Your task to perform on an android device: Add logitech g910 to the cart on ebay, then select checkout. Image 0: 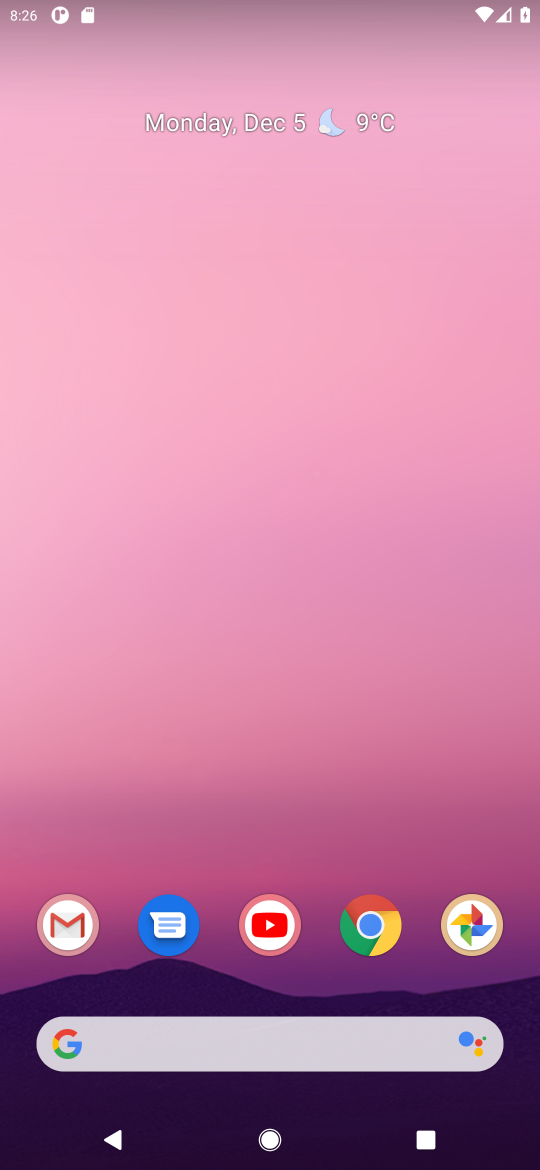
Step 0: click (368, 926)
Your task to perform on an android device: Add logitech g910 to the cart on ebay, then select checkout. Image 1: 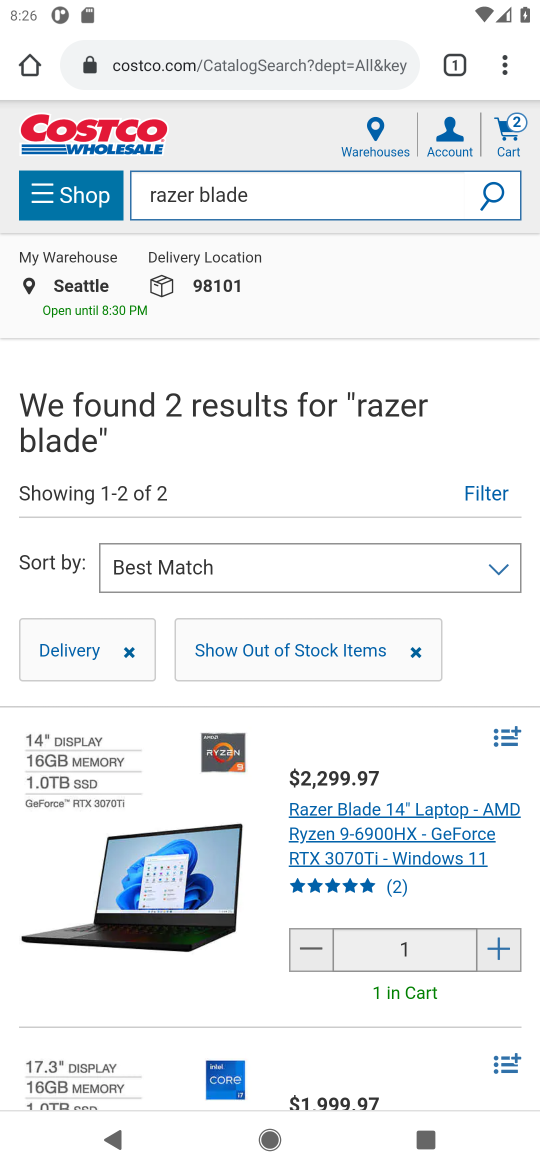
Step 1: click (221, 59)
Your task to perform on an android device: Add logitech g910 to the cart on ebay, then select checkout. Image 2: 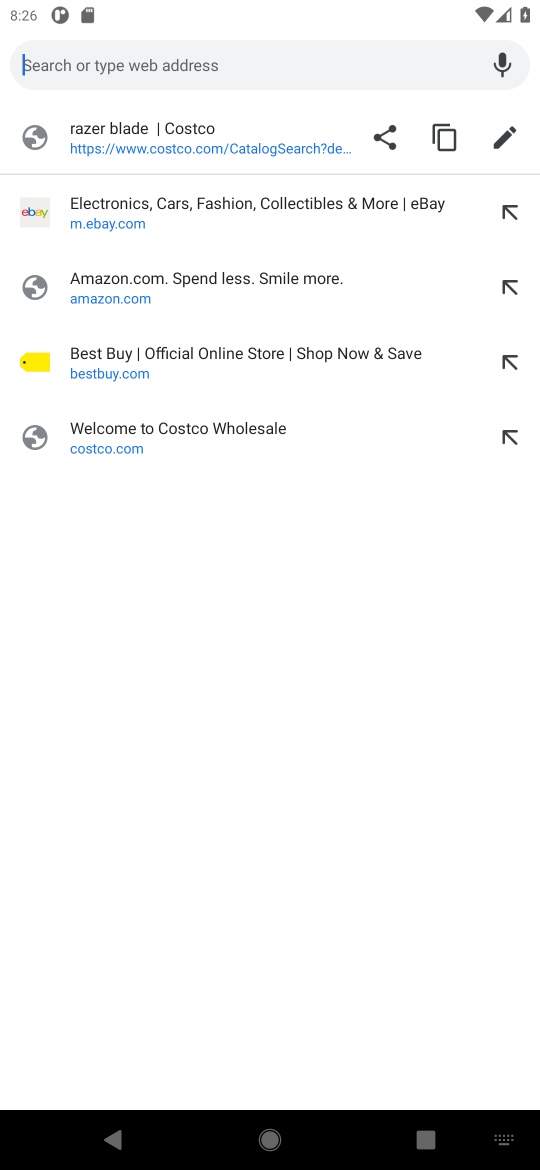
Step 2: click (93, 200)
Your task to perform on an android device: Add logitech g910 to the cart on ebay, then select checkout. Image 3: 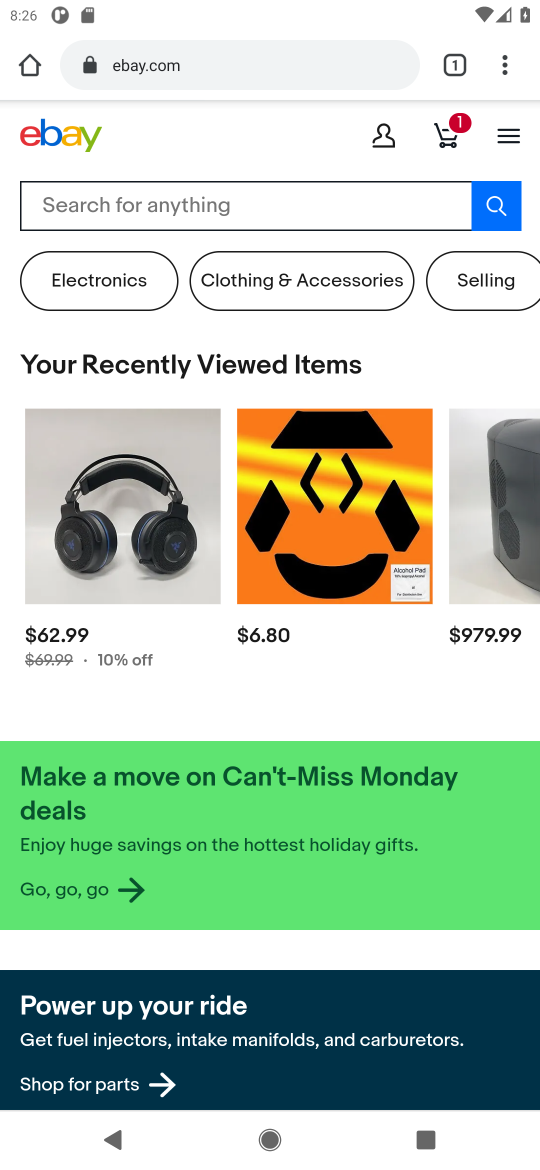
Step 3: click (106, 197)
Your task to perform on an android device: Add logitech g910 to the cart on ebay, then select checkout. Image 4: 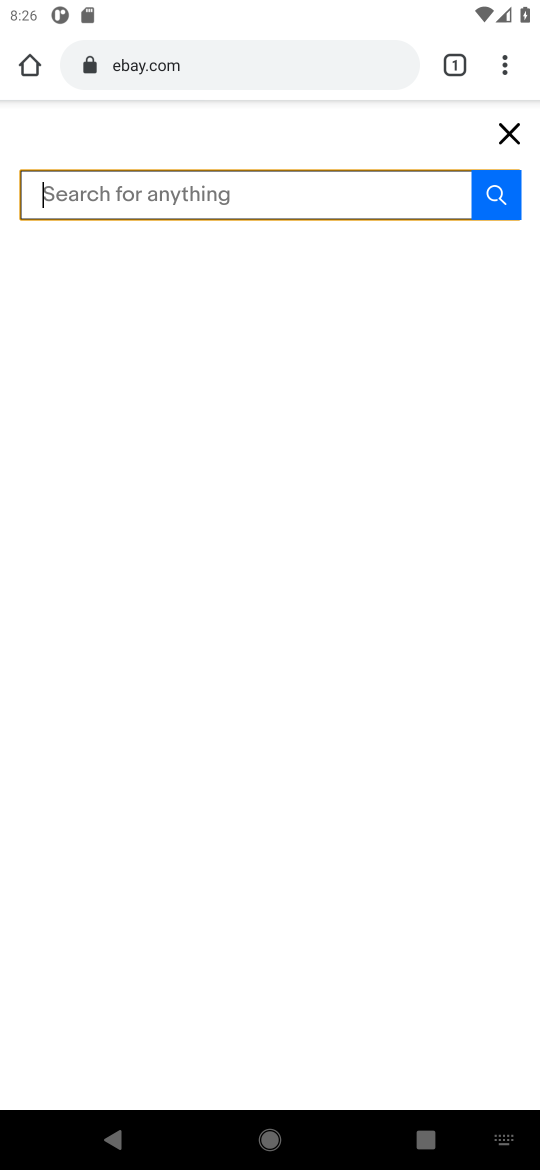
Step 4: type " logitech g910"
Your task to perform on an android device: Add logitech g910 to the cart on ebay, then select checkout. Image 5: 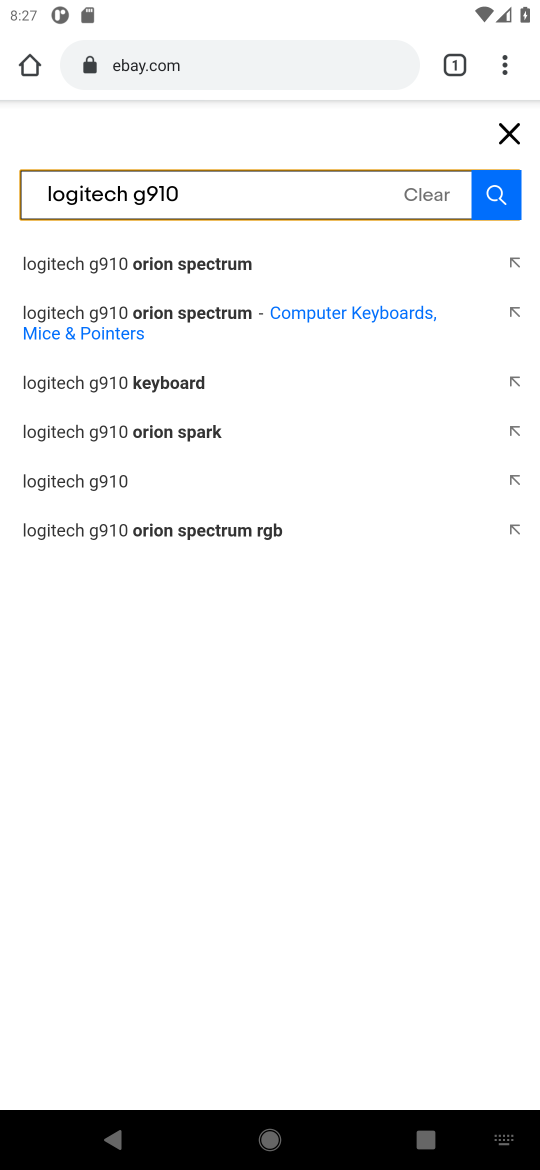
Step 5: click (69, 481)
Your task to perform on an android device: Add logitech g910 to the cart on ebay, then select checkout. Image 6: 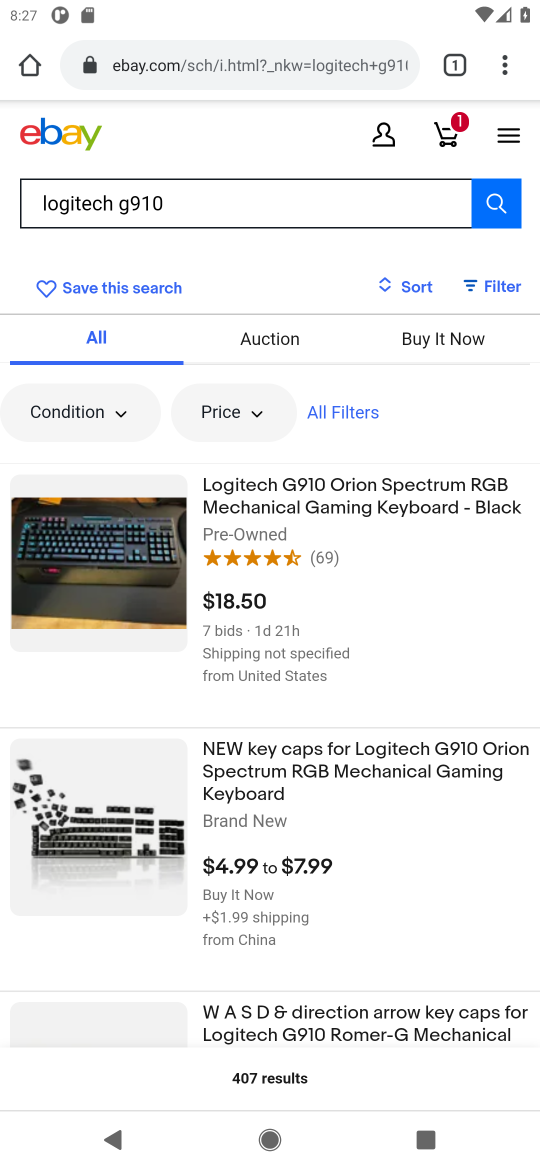
Step 6: click (241, 527)
Your task to perform on an android device: Add logitech g910 to the cart on ebay, then select checkout. Image 7: 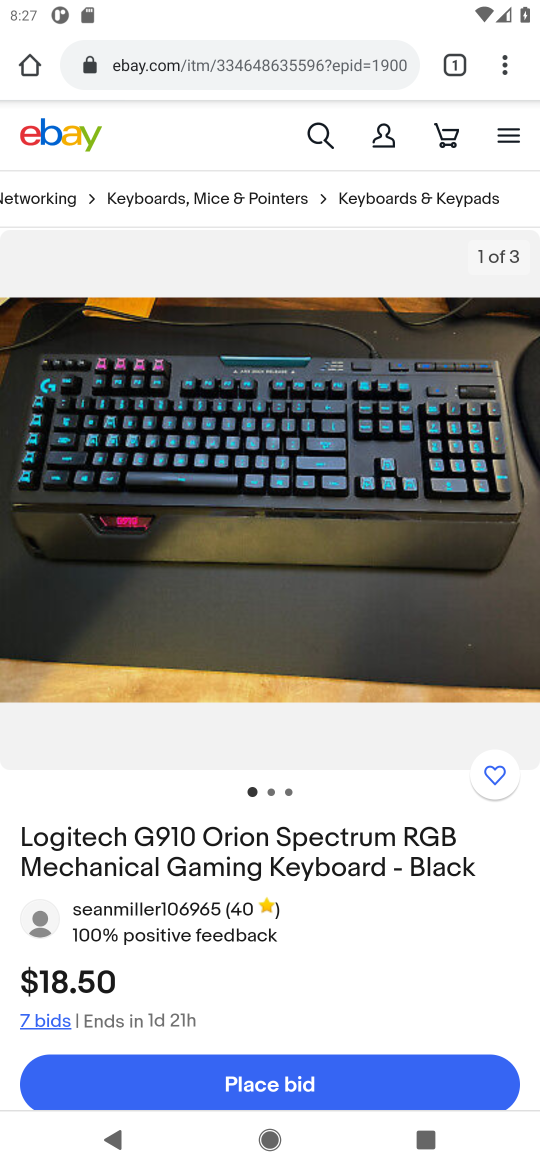
Step 7: drag from (318, 840) to (306, 399)
Your task to perform on an android device: Add logitech g910 to the cart on ebay, then select checkout. Image 8: 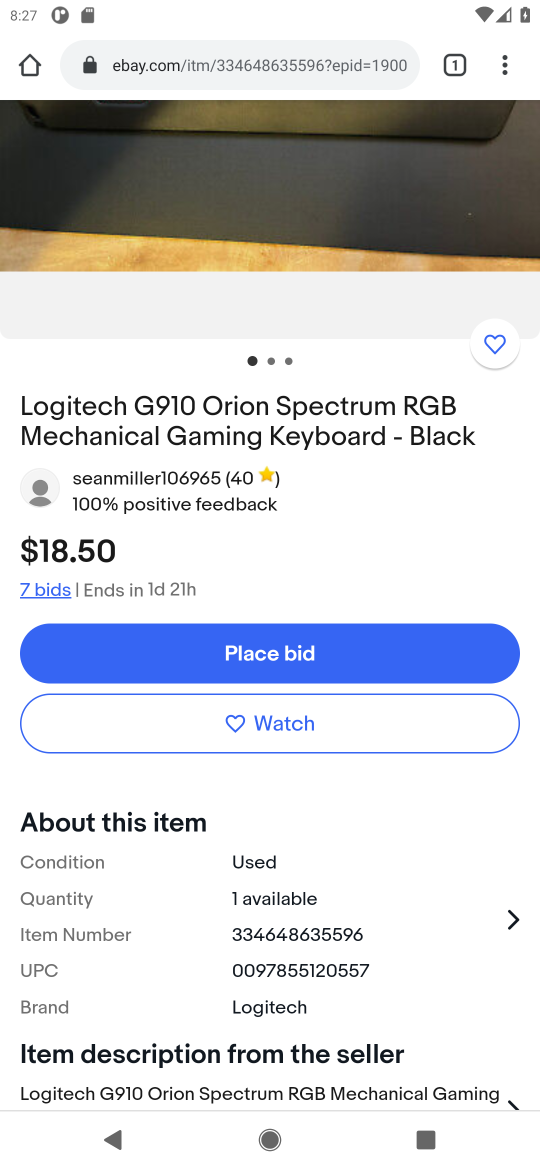
Step 8: press back button
Your task to perform on an android device: Add logitech g910 to the cart on ebay, then select checkout. Image 9: 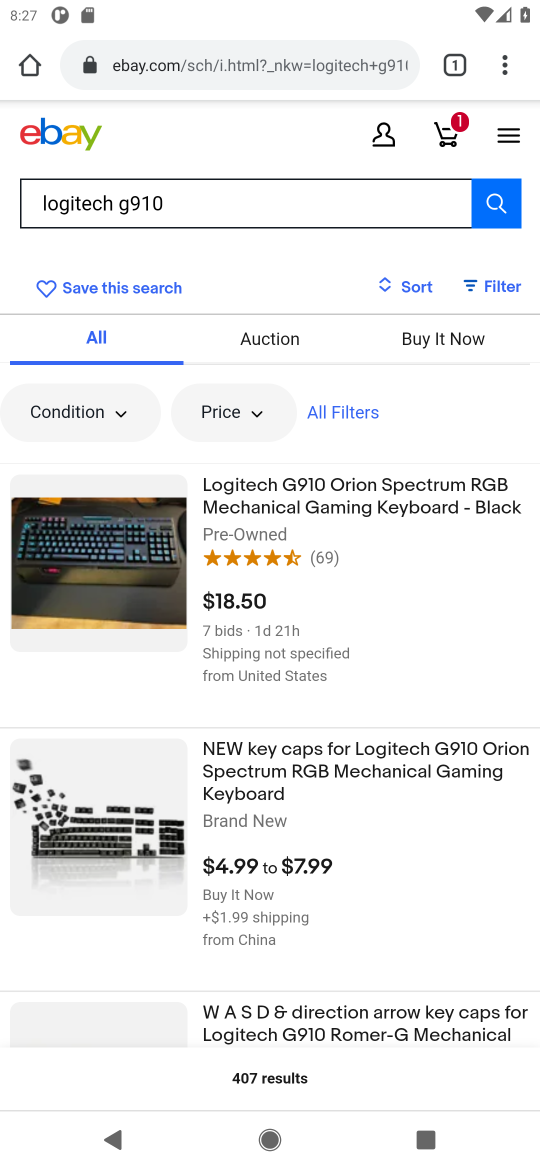
Step 9: click (268, 789)
Your task to perform on an android device: Add logitech g910 to the cart on ebay, then select checkout. Image 10: 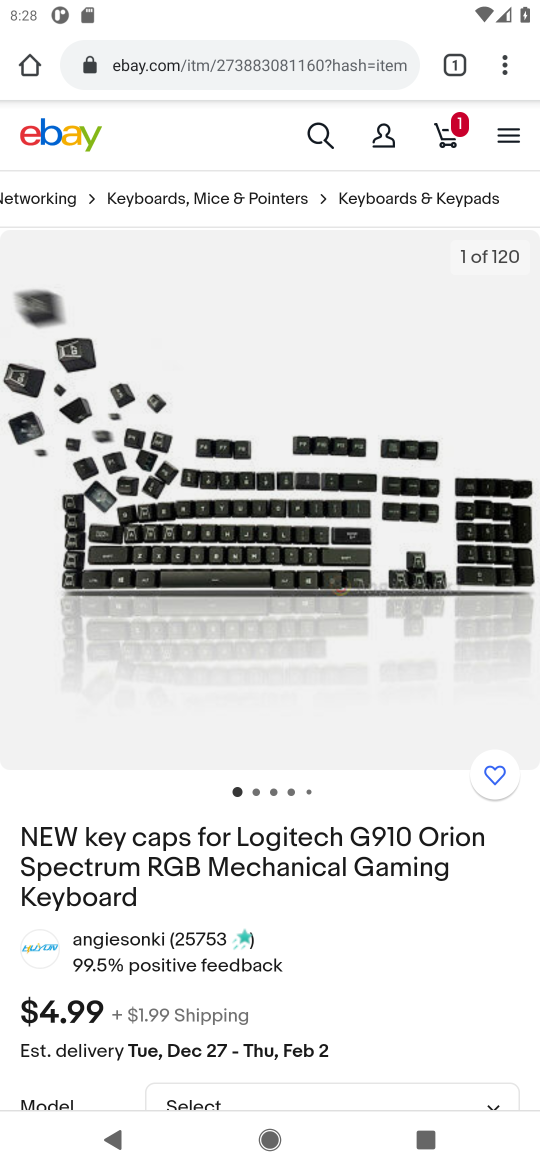
Step 10: drag from (320, 946) to (328, 456)
Your task to perform on an android device: Add logitech g910 to the cart on ebay, then select checkout. Image 11: 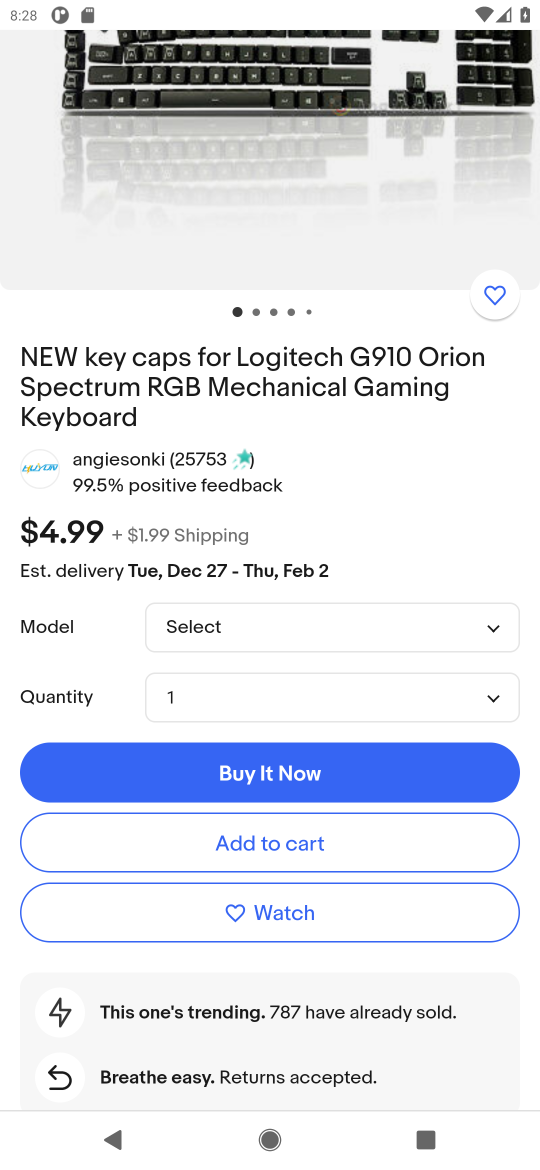
Step 11: click (255, 848)
Your task to perform on an android device: Add logitech g910 to the cart on ebay, then select checkout. Image 12: 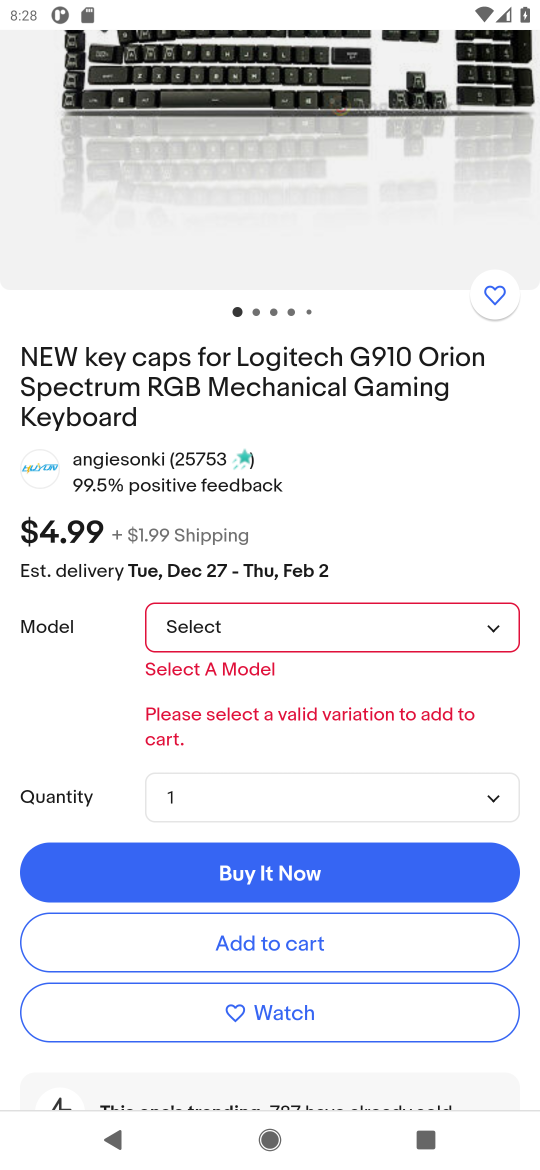
Step 12: click (489, 640)
Your task to perform on an android device: Add logitech g910 to the cart on ebay, then select checkout. Image 13: 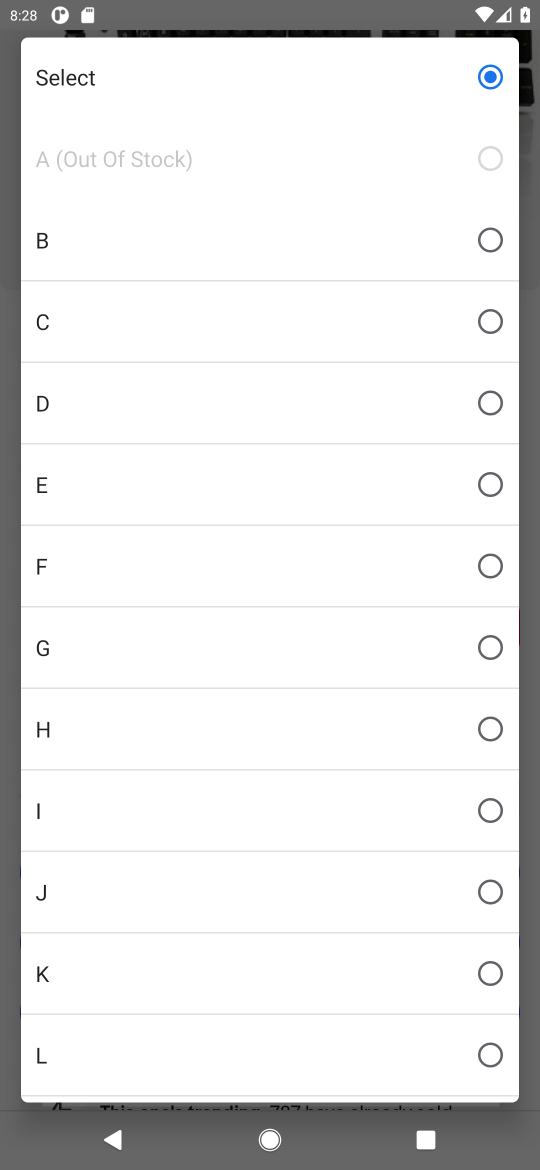
Step 13: click (36, 243)
Your task to perform on an android device: Add logitech g910 to the cart on ebay, then select checkout. Image 14: 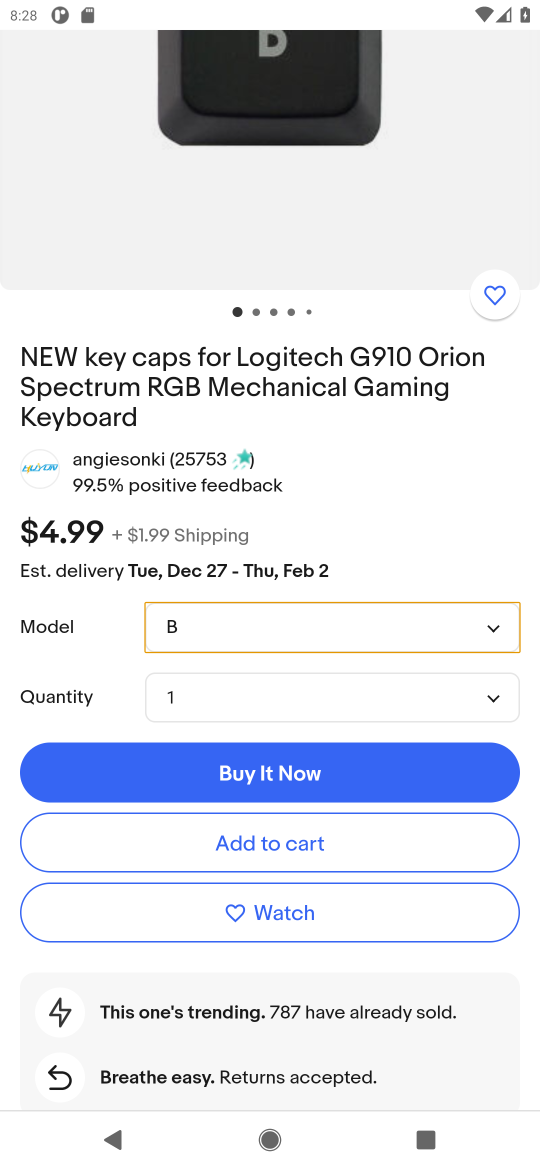
Step 14: click (260, 846)
Your task to perform on an android device: Add logitech g910 to the cart on ebay, then select checkout. Image 15: 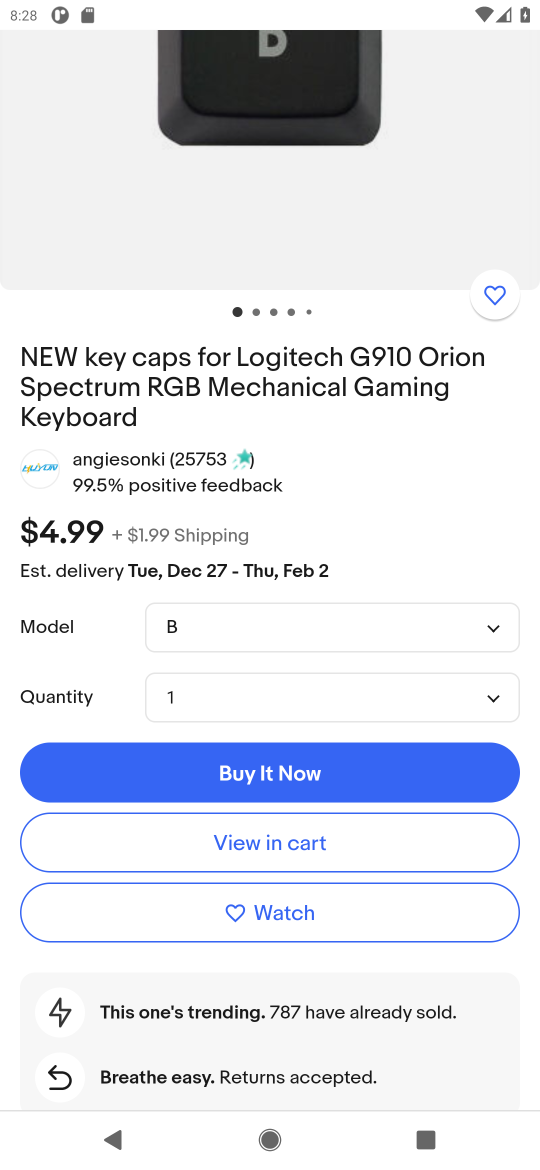
Step 15: click (260, 846)
Your task to perform on an android device: Add logitech g910 to the cart on ebay, then select checkout. Image 16: 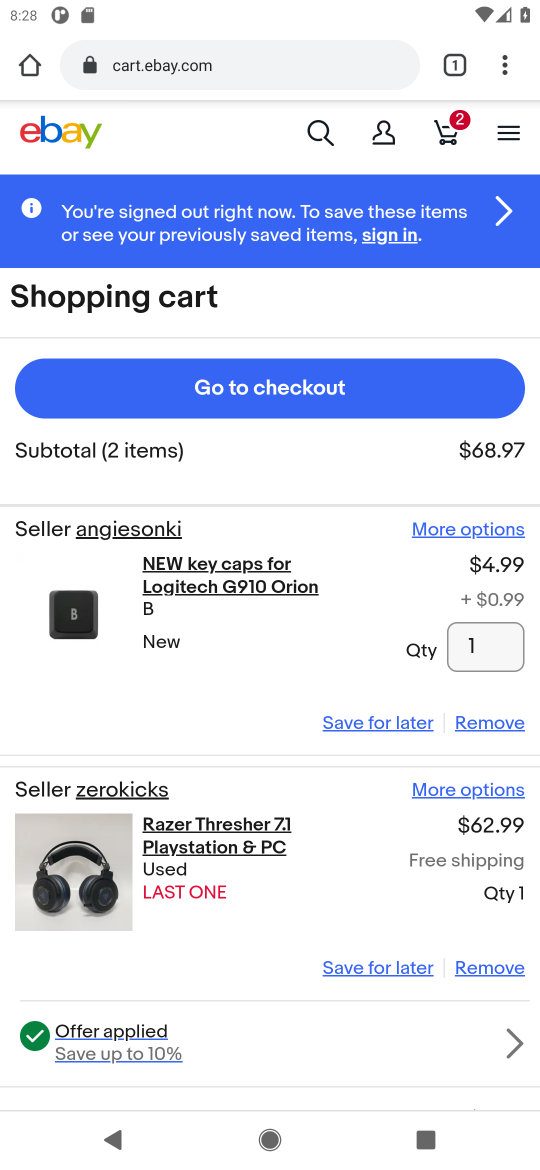
Step 16: click (285, 385)
Your task to perform on an android device: Add logitech g910 to the cart on ebay, then select checkout. Image 17: 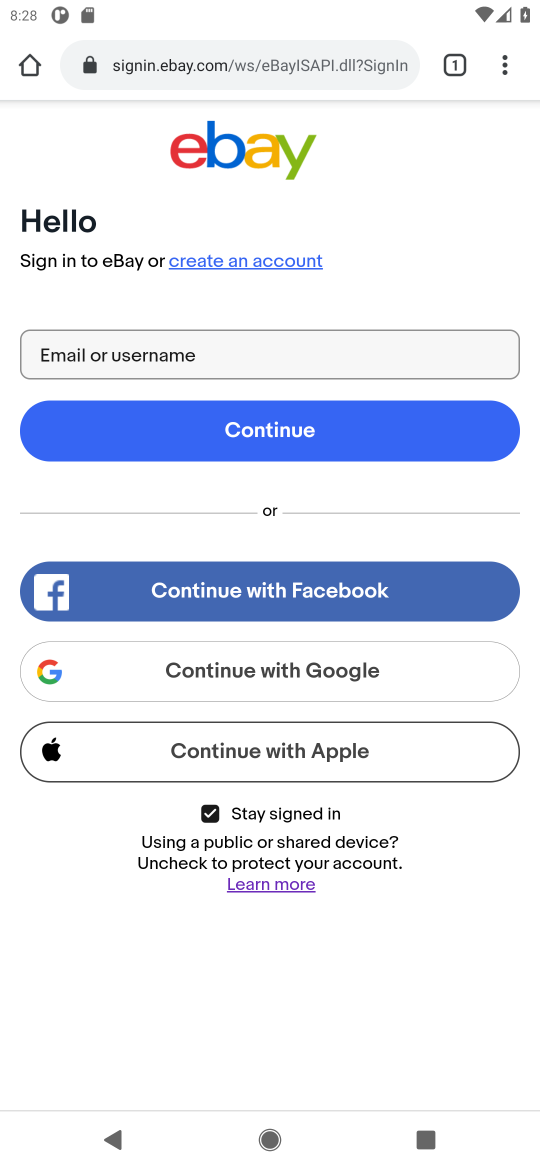
Step 17: task complete